Your task to perform on an android device: turn on translation in the chrome app Image 0: 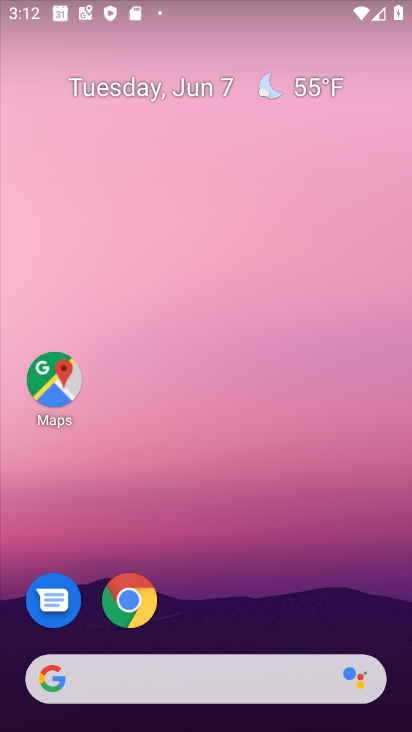
Step 0: click (134, 602)
Your task to perform on an android device: turn on translation in the chrome app Image 1: 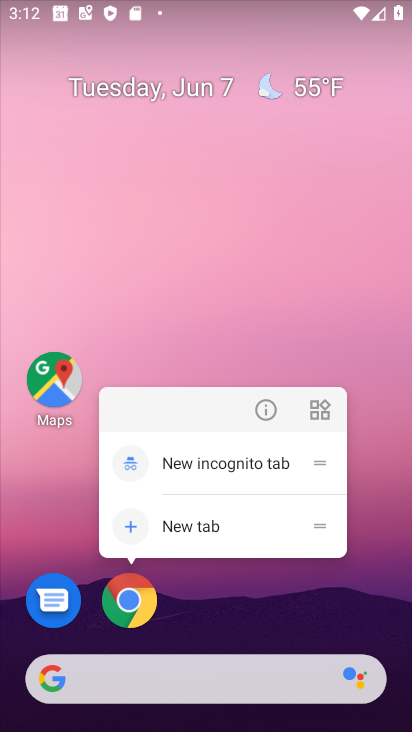
Step 1: click (136, 606)
Your task to perform on an android device: turn on translation in the chrome app Image 2: 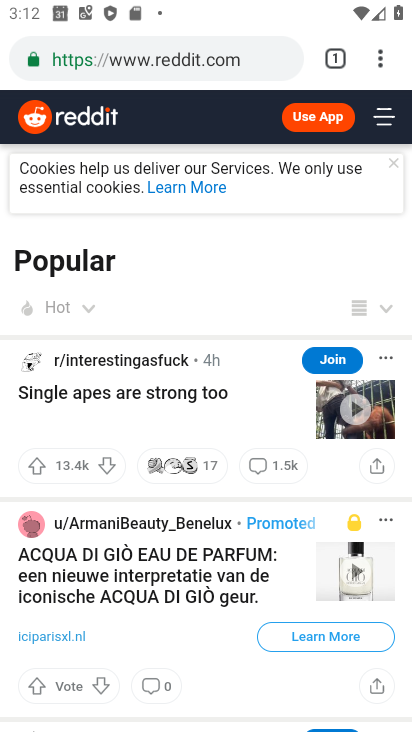
Step 2: click (384, 59)
Your task to perform on an android device: turn on translation in the chrome app Image 3: 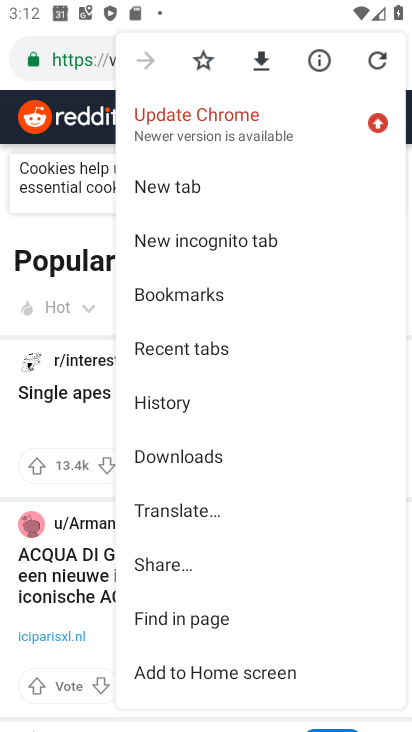
Step 3: drag from (221, 592) to (221, 129)
Your task to perform on an android device: turn on translation in the chrome app Image 4: 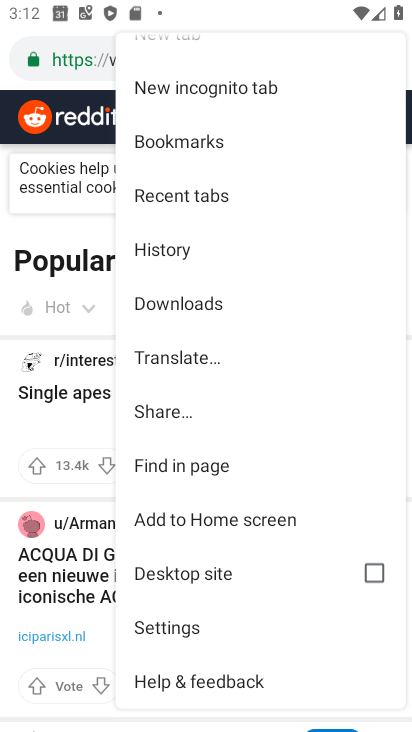
Step 4: click (168, 627)
Your task to perform on an android device: turn on translation in the chrome app Image 5: 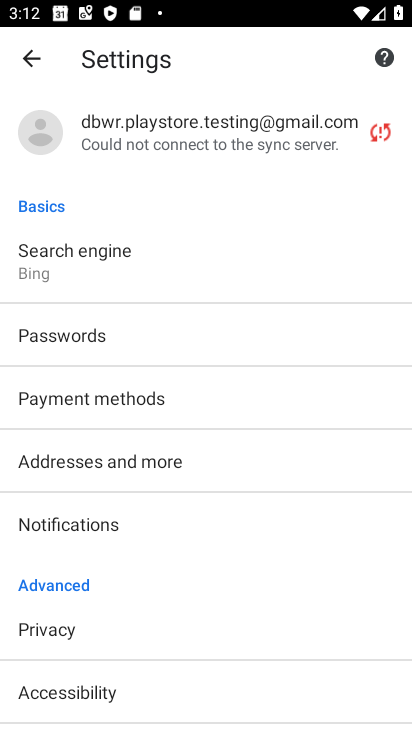
Step 5: drag from (122, 592) to (169, 239)
Your task to perform on an android device: turn on translation in the chrome app Image 6: 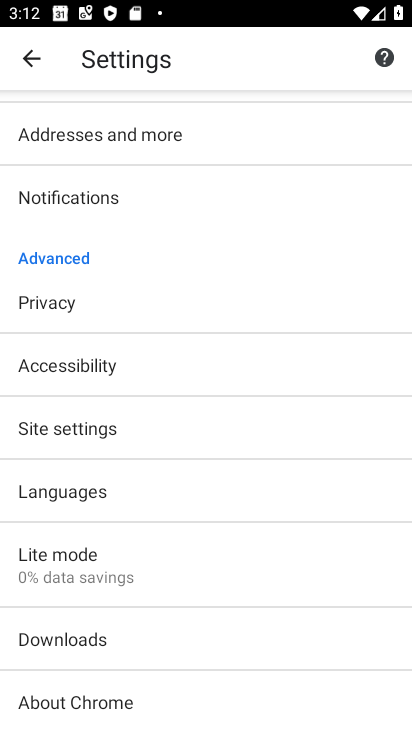
Step 6: click (59, 492)
Your task to perform on an android device: turn on translation in the chrome app Image 7: 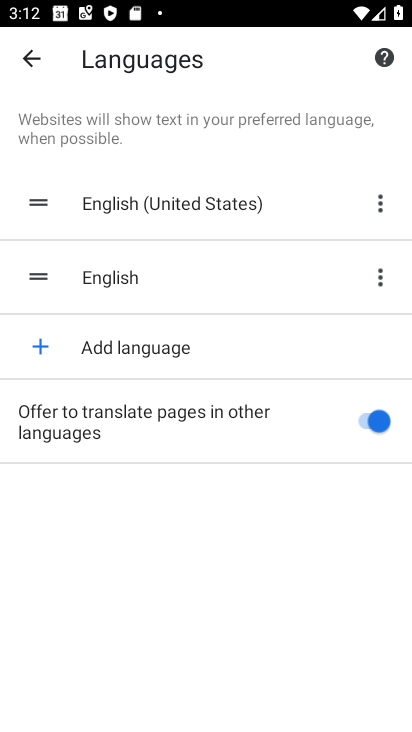
Step 7: task complete